Your task to perform on an android device: move an email to a new category in the gmail app Image 0: 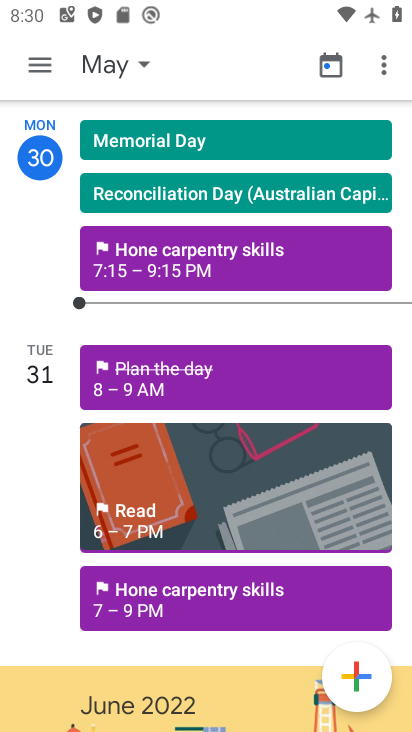
Step 0: press home button
Your task to perform on an android device: move an email to a new category in the gmail app Image 1: 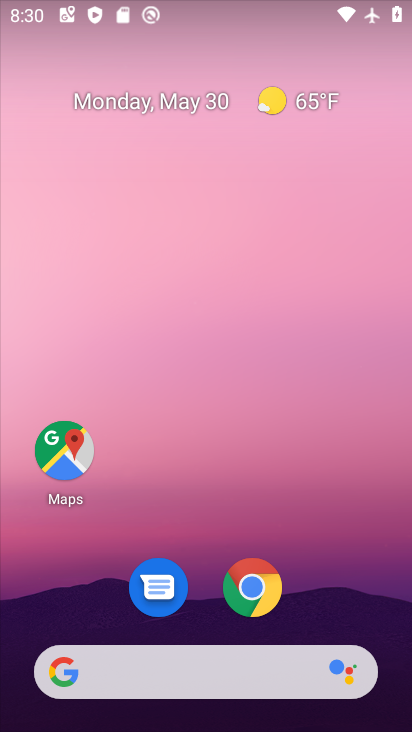
Step 1: drag from (142, 649) to (290, 116)
Your task to perform on an android device: move an email to a new category in the gmail app Image 2: 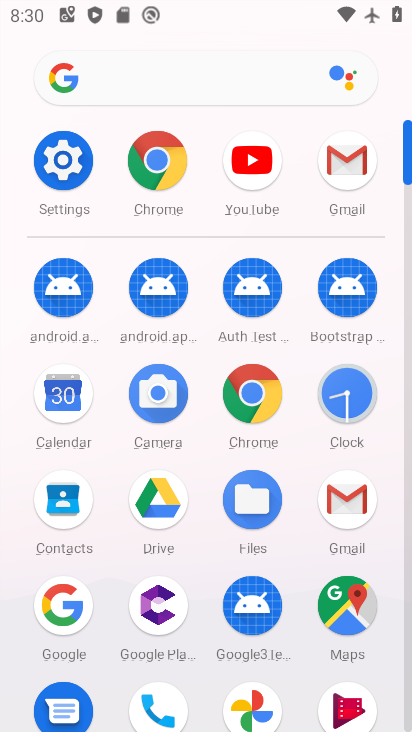
Step 2: click (354, 176)
Your task to perform on an android device: move an email to a new category in the gmail app Image 3: 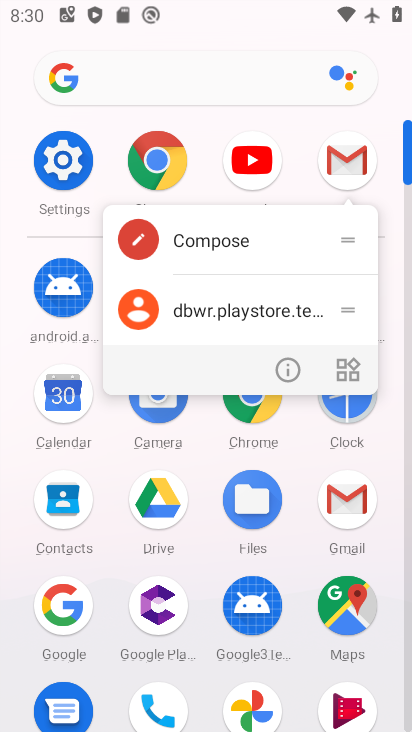
Step 3: click (342, 168)
Your task to perform on an android device: move an email to a new category in the gmail app Image 4: 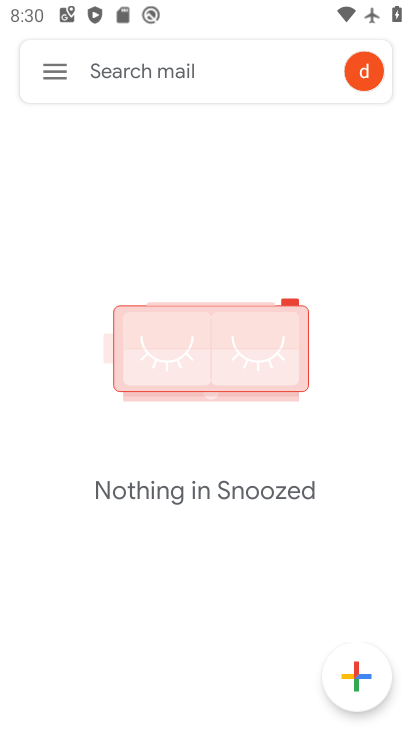
Step 4: click (58, 74)
Your task to perform on an android device: move an email to a new category in the gmail app Image 5: 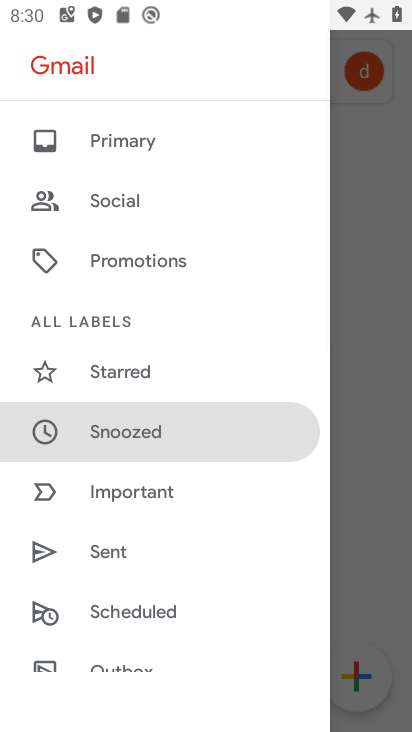
Step 5: drag from (199, 612) to (307, 205)
Your task to perform on an android device: move an email to a new category in the gmail app Image 6: 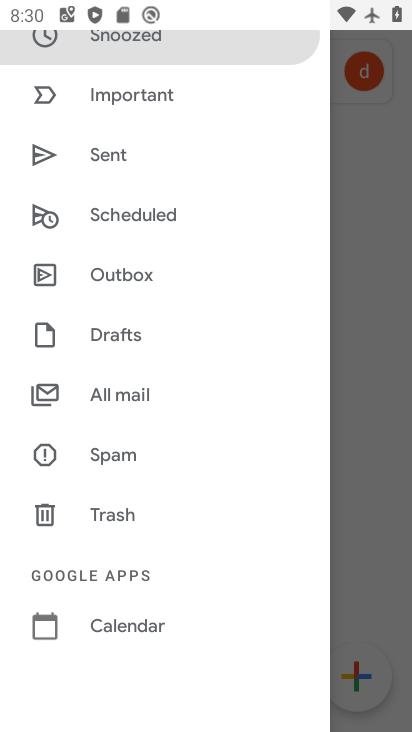
Step 6: click (125, 397)
Your task to perform on an android device: move an email to a new category in the gmail app Image 7: 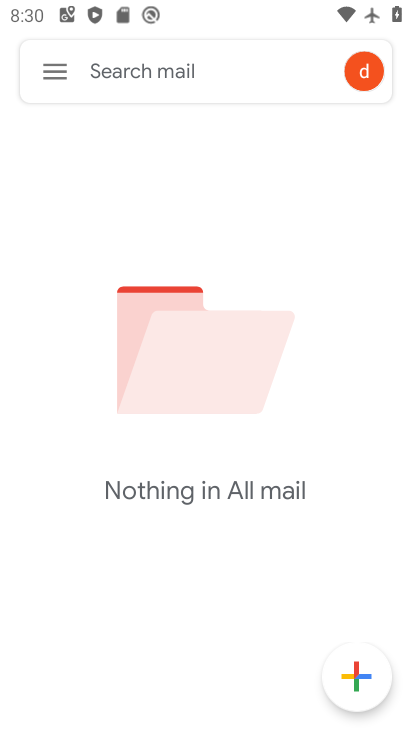
Step 7: task complete